Your task to perform on an android device: See recent photos Image 0: 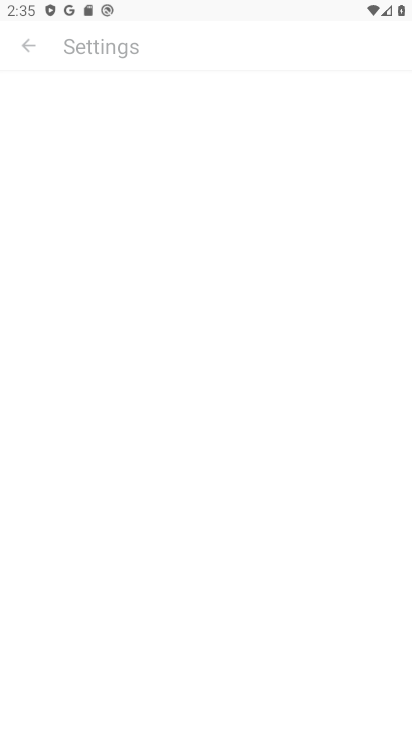
Step 0: press back button
Your task to perform on an android device: See recent photos Image 1: 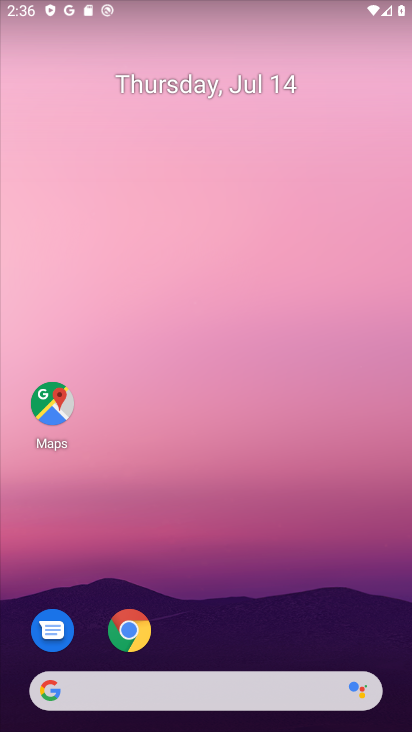
Step 1: drag from (177, 559) to (78, 100)
Your task to perform on an android device: See recent photos Image 2: 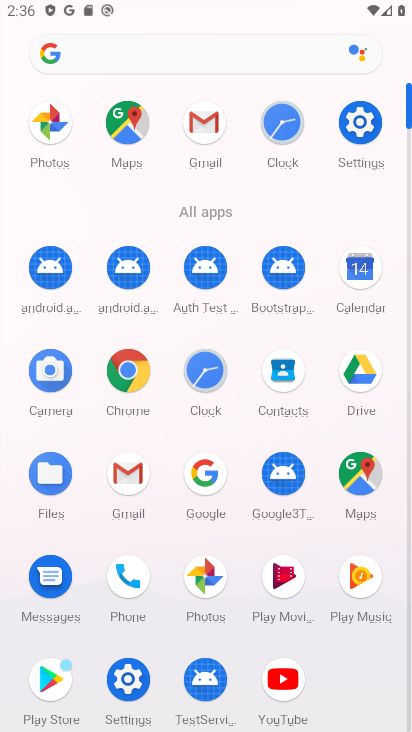
Step 2: click (195, 569)
Your task to perform on an android device: See recent photos Image 3: 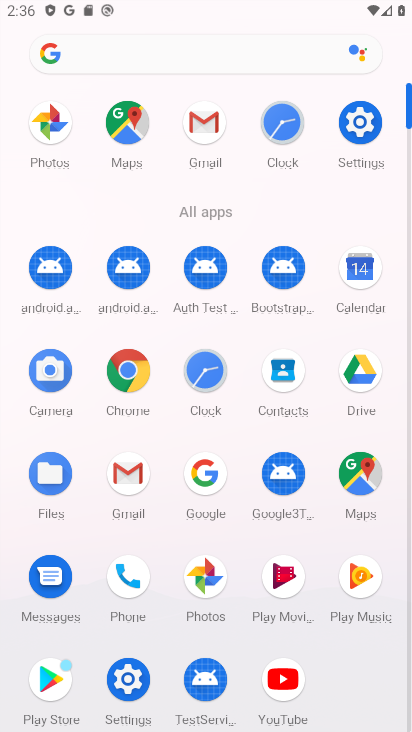
Step 3: click (196, 569)
Your task to perform on an android device: See recent photos Image 4: 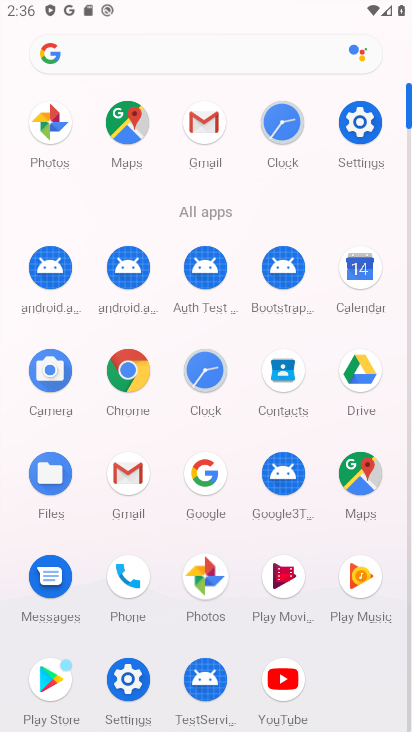
Step 4: click (197, 569)
Your task to perform on an android device: See recent photos Image 5: 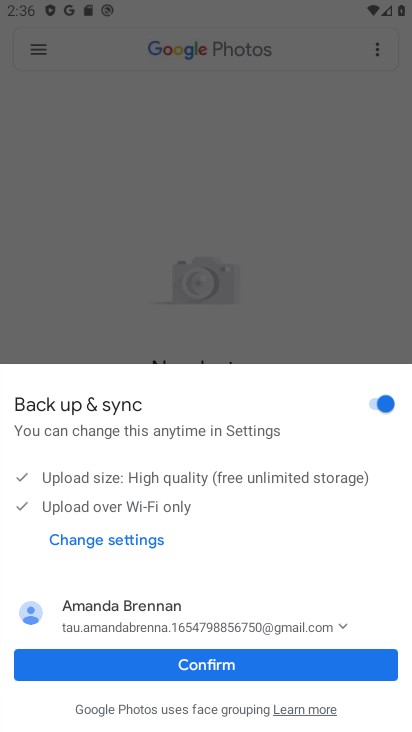
Step 5: click (308, 254)
Your task to perform on an android device: See recent photos Image 6: 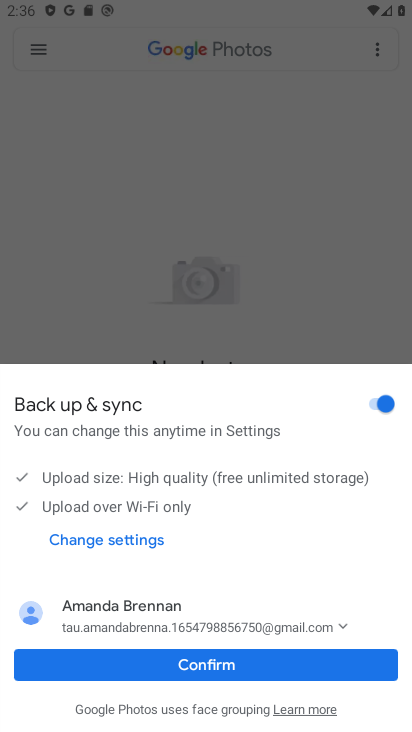
Step 6: click (311, 258)
Your task to perform on an android device: See recent photos Image 7: 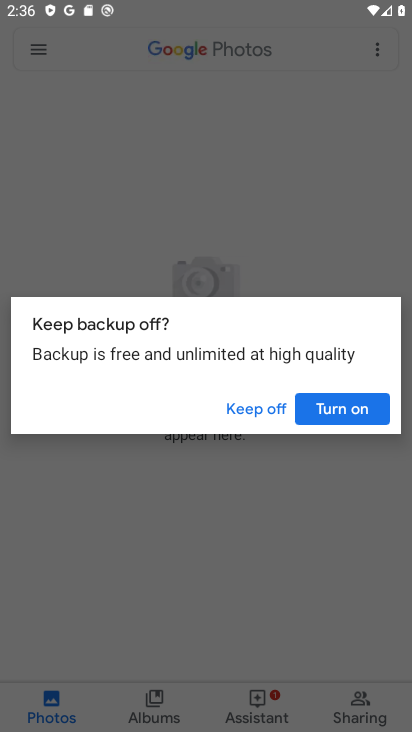
Step 7: click (253, 408)
Your task to perform on an android device: See recent photos Image 8: 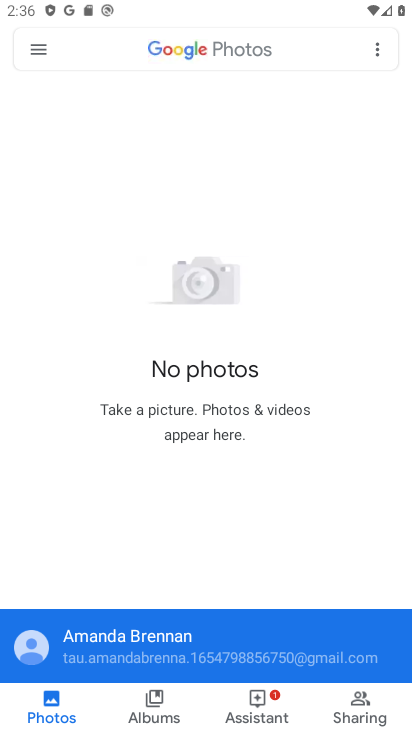
Step 8: click (253, 408)
Your task to perform on an android device: See recent photos Image 9: 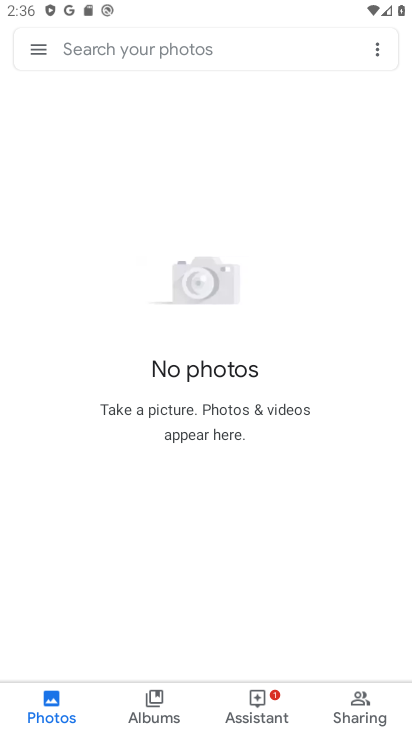
Step 9: task complete